Your task to perform on an android device: Go to battery settings Image 0: 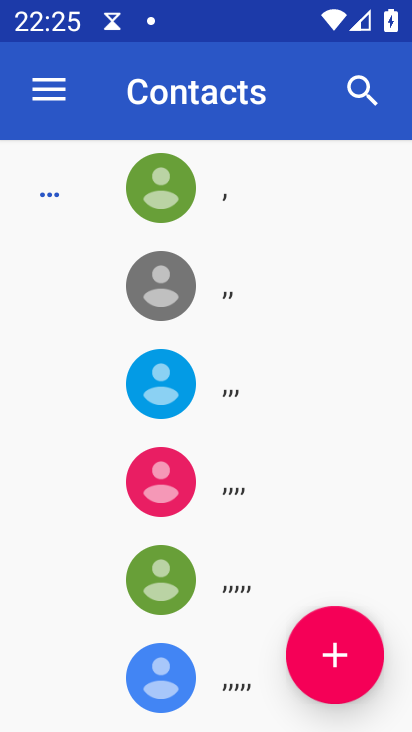
Step 0: press back button
Your task to perform on an android device: Go to battery settings Image 1: 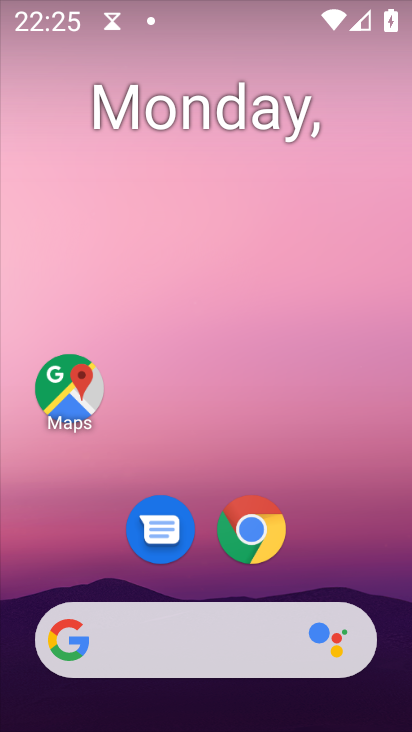
Step 1: drag from (343, 575) to (214, 232)
Your task to perform on an android device: Go to battery settings Image 2: 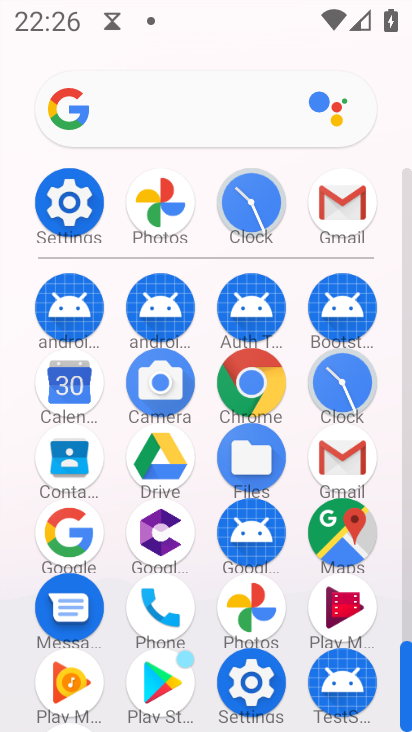
Step 2: click (69, 201)
Your task to perform on an android device: Go to battery settings Image 3: 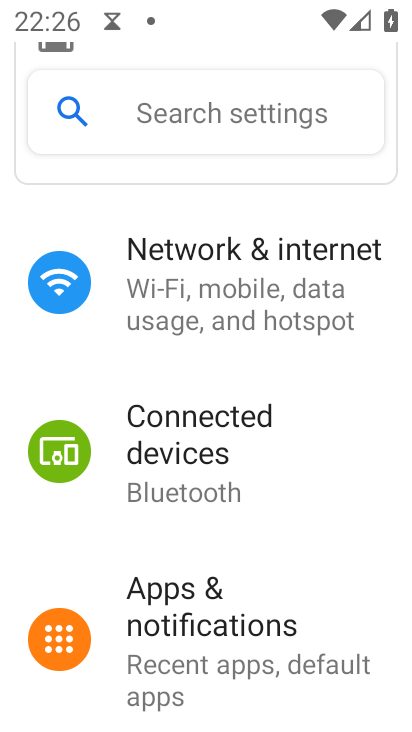
Step 3: drag from (240, 549) to (244, 393)
Your task to perform on an android device: Go to battery settings Image 4: 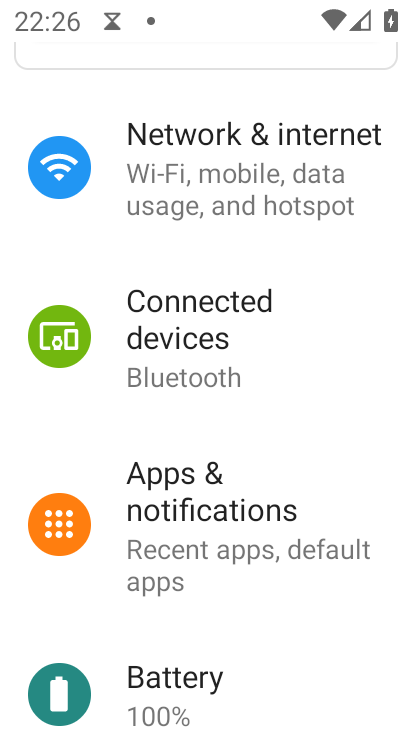
Step 4: drag from (224, 598) to (239, 439)
Your task to perform on an android device: Go to battery settings Image 5: 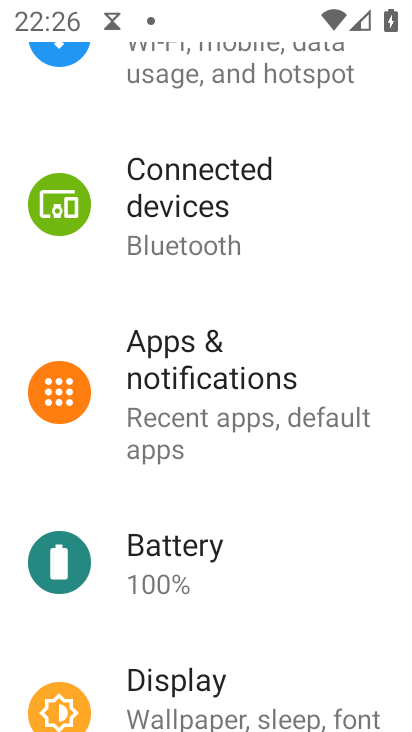
Step 5: drag from (201, 624) to (215, 459)
Your task to perform on an android device: Go to battery settings Image 6: 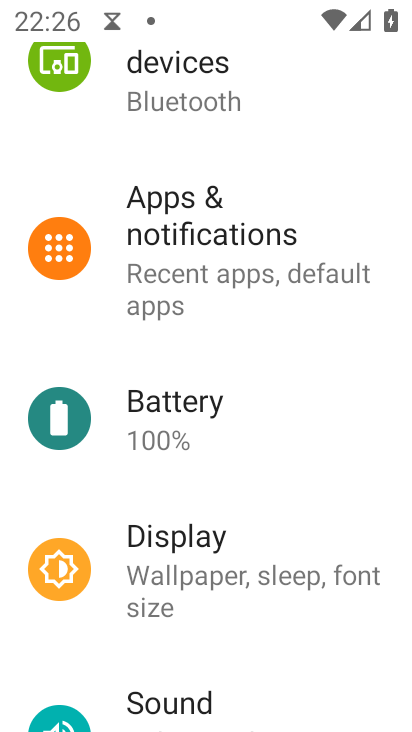
Step 6: drag from (220, 640) to (232, 485)
Your task to perform on an android device: Go to battery settings Image 7: 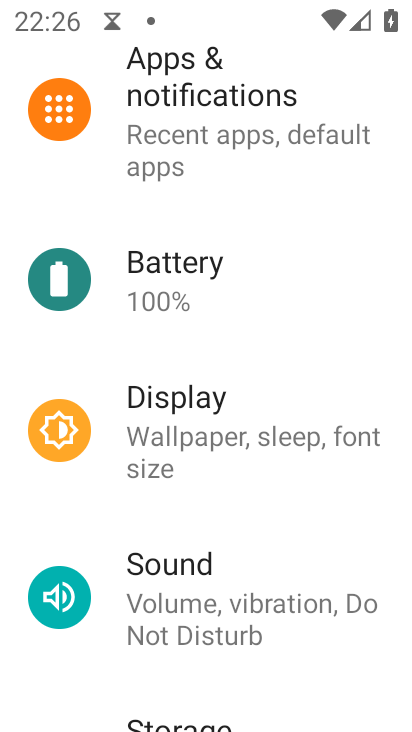
Step 7: click (169, 275)
Your task to perform on an android device: Go to battery settings Image 8: 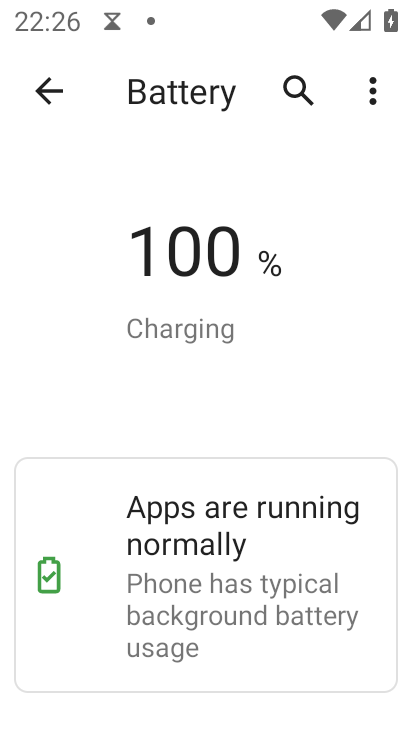
Step 8: task complete